Your task to perform on an android device: turn off airplane mode Image 0: 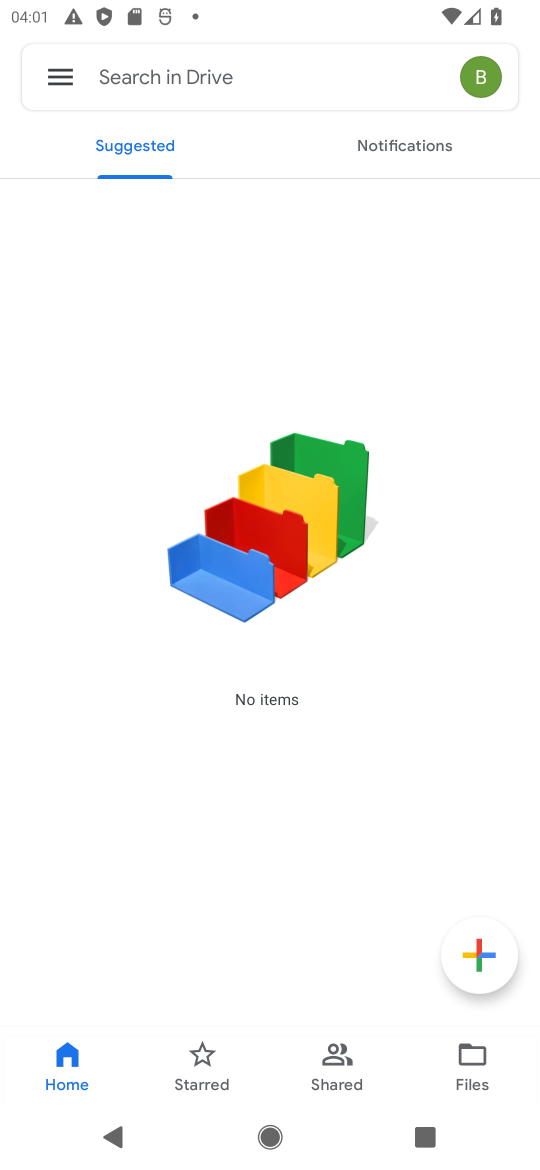
Step 0: press home button
Your task to perform on an android device: turn off airplane mode Image 1: 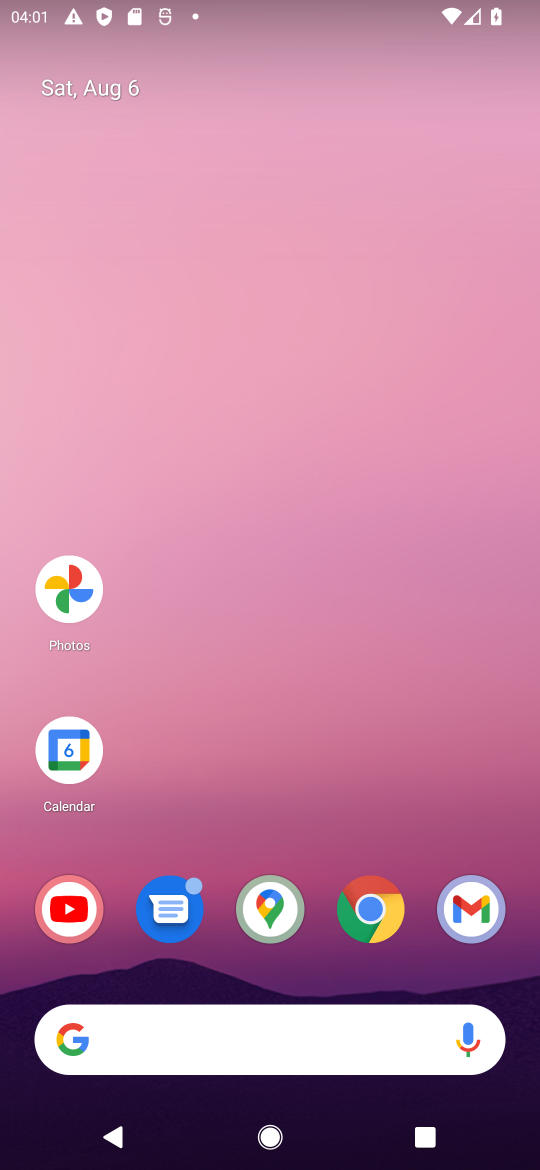
Step 1: drag from (272, 797) to (230, 49)
Your task to perform on an android device: turn off airplane mode Image 2: 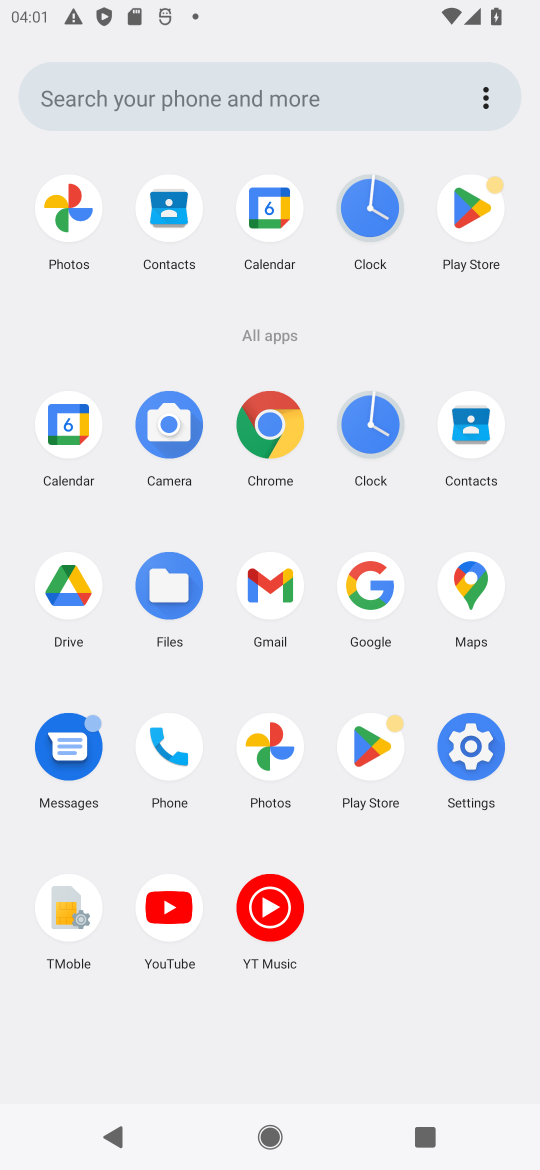
Step 2: click (473, 746)
Your task to perform on an android device: turn off airplane mode Image 3: 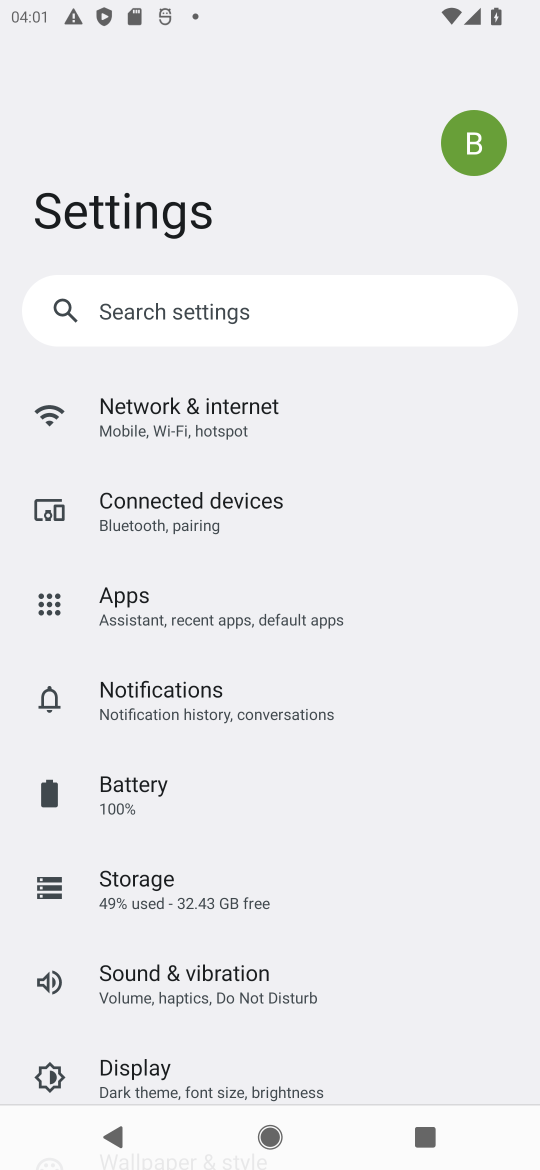
Step 3: click (188, 410)
Your task to perform on an android device: turn off airplane mode Image 4: 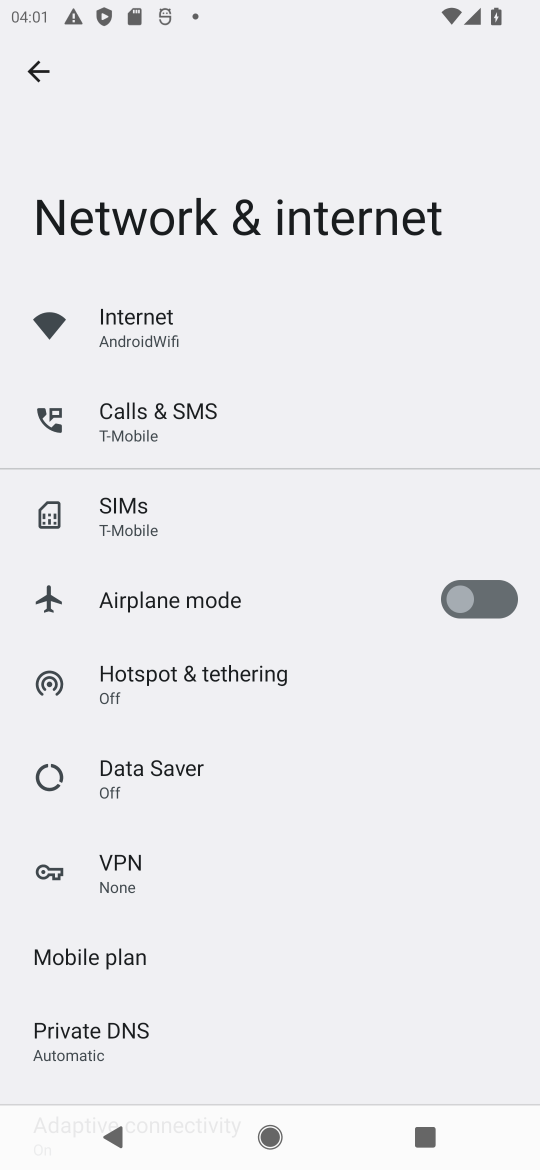
Step 4: task complete